Your task to perform on an android device: clear history in the chrome app Image 0: 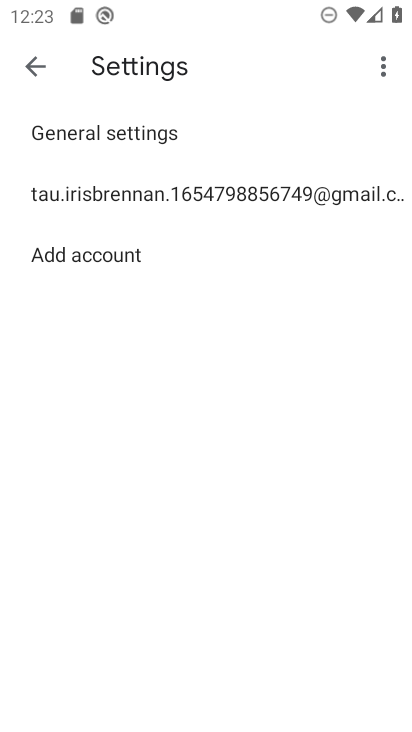
Step 0: press home button
Your task to perform on an android device: clear history in the chrome app Image 1: 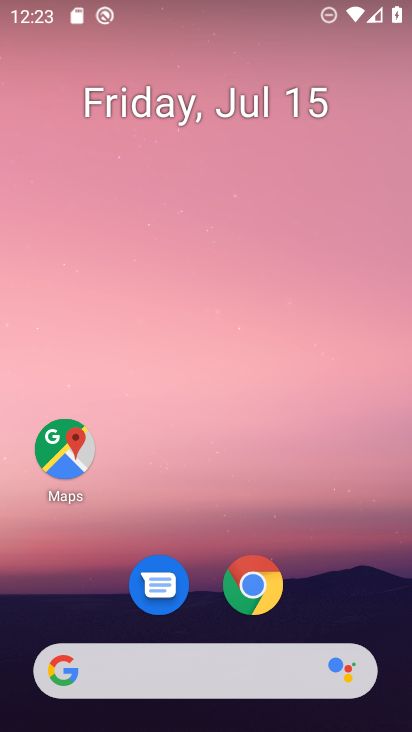
Step 1: click (261, 613)
Your task to perform on an android device: clear history in the chrome app Image 2: 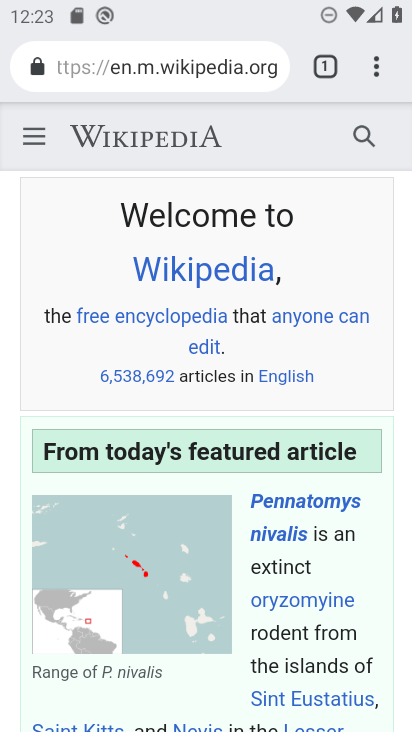
Step 2: click (372, 69)
Your task to perform on an android device: clear history in the chrome app Image 3: 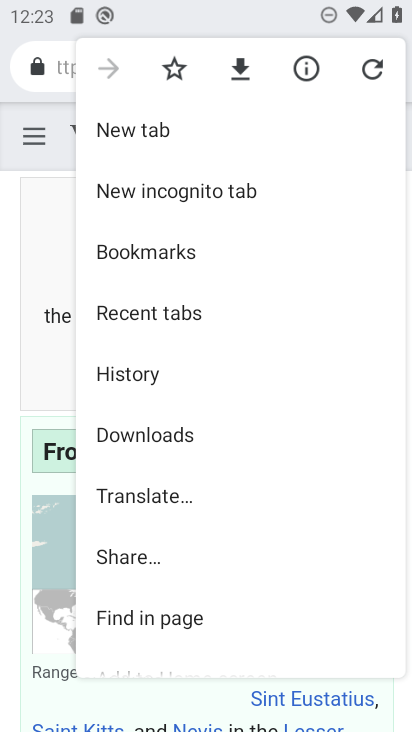
Step 3: click (127, 358)
Your task to perform on an android device: clear history in the chrome app Image 4: 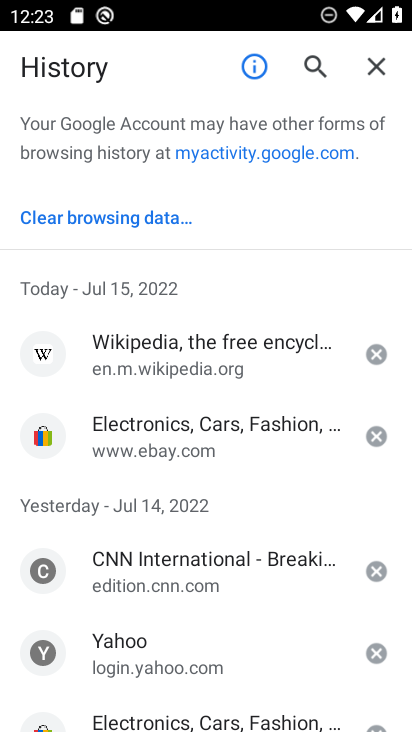
Step 4: click (115, 213)
Your task to perform on an android device: clear history in the chrome app Image 5: 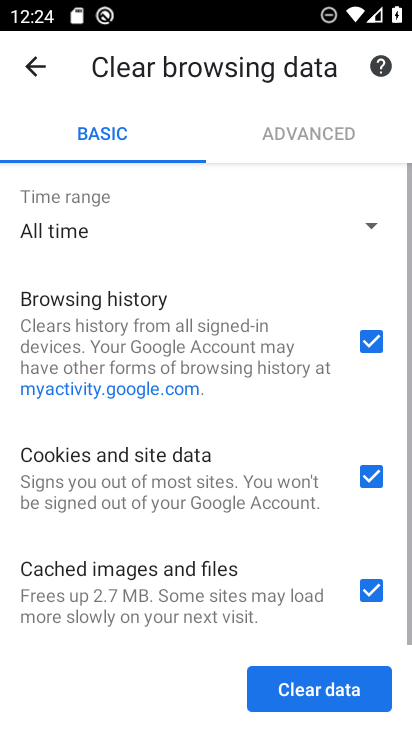
Step 5: click (344, 685)
Your task to perform on an android device: clear history in the chrome app Image 6: 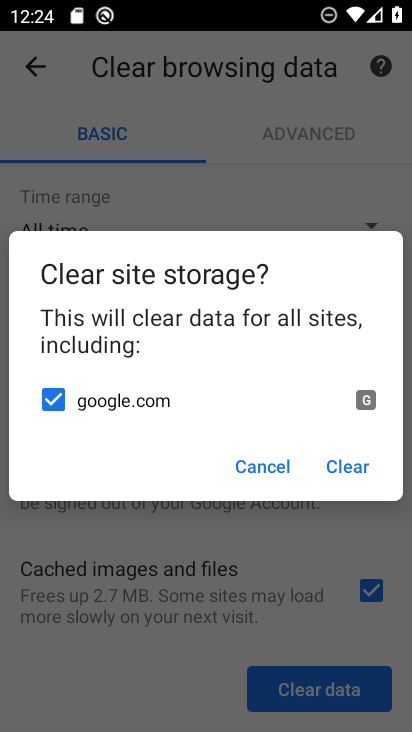
Step 6: click (354, 465)
Your task to perform on an android device: clear history in the chrome app Image 7: 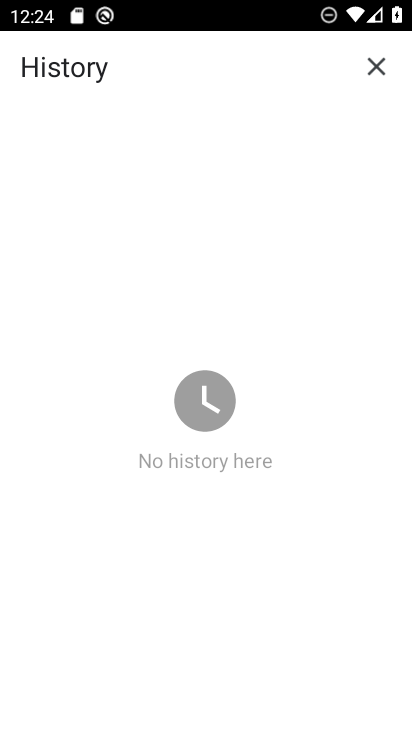
Step 7: task complete